Your task to perform on an android device: toggle location history Image 0: 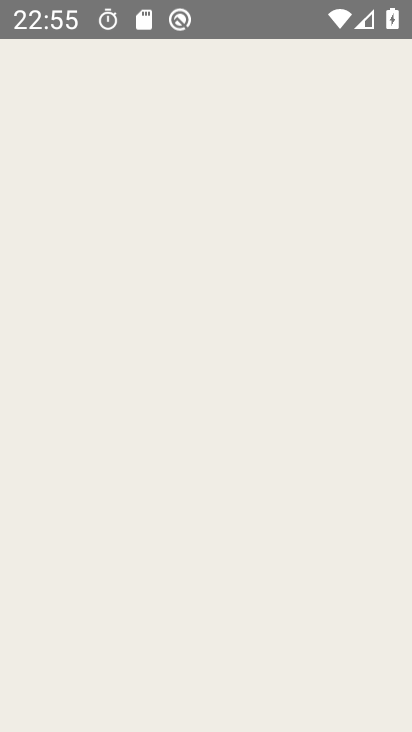
Step 0: press home button
Your task to perform on an android device: toggle location history Image 1: 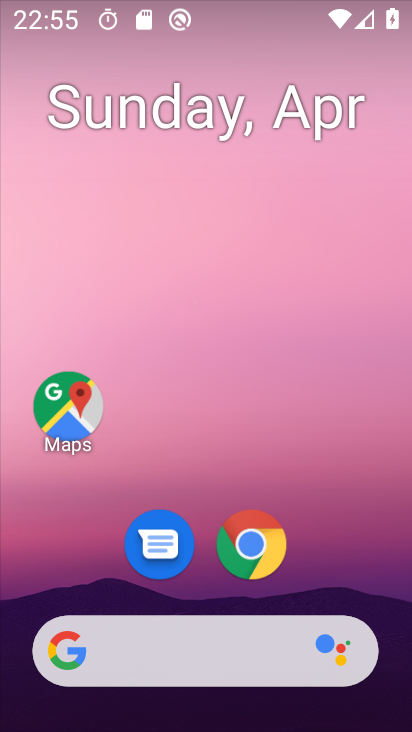
Step 1: drag from (341, 529) to (376, 274)
Your task to perform on an android device: toggle location history Image 2: 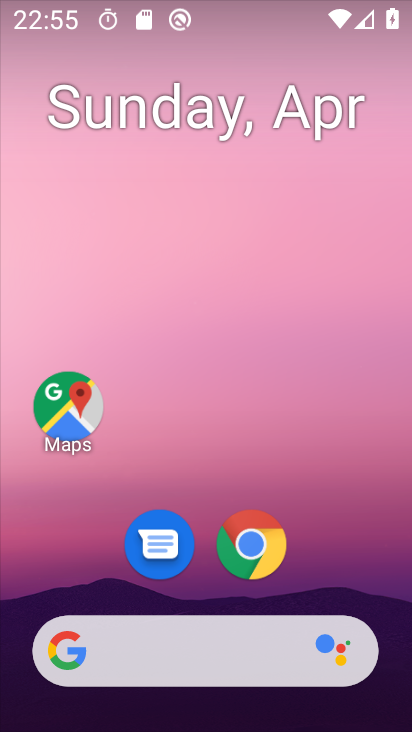
Step 2: click (346, 287)
Your task to perform on an android device: toggle location history Image 3: 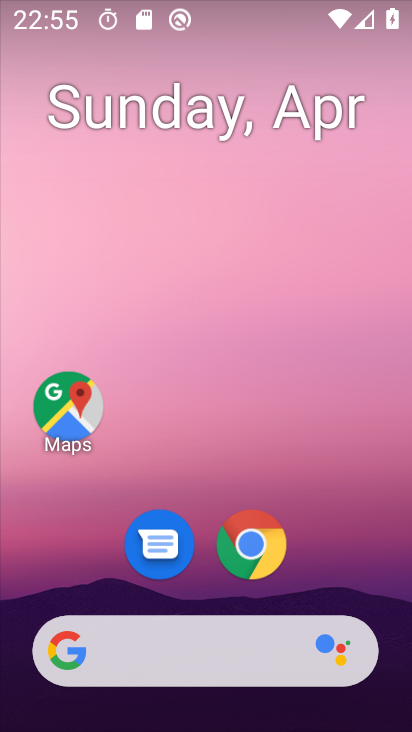
Step 3: drag from (348, 501) to (356, 231)
Your task to perform on an android device: toggle location history Image 4: 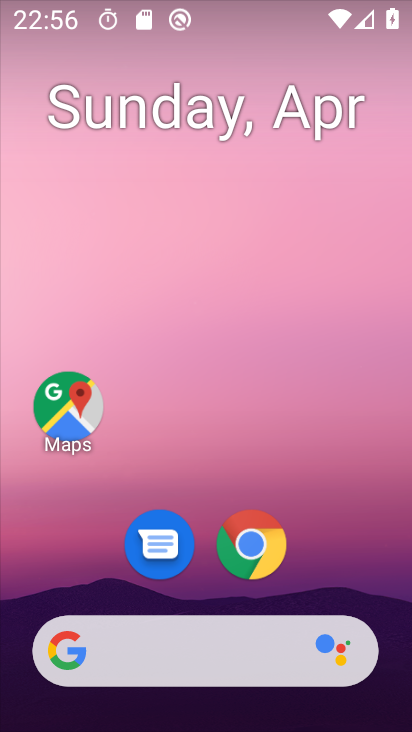
Step 4: drag from (324, 519) to (358, 173)
Your task to perform on an android device: toggle location history Image 5: 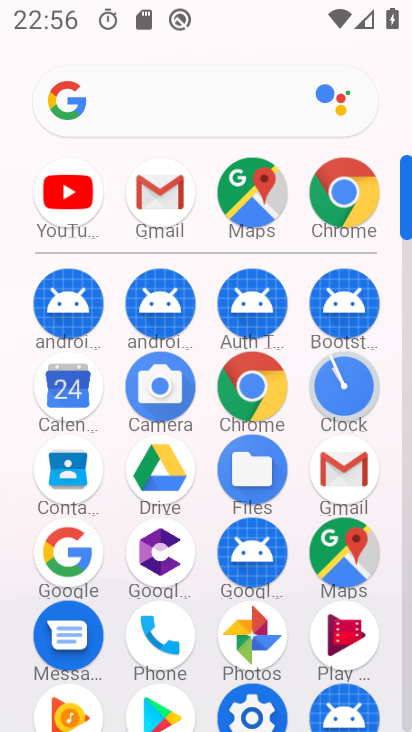
Step 5: click (247, 716)
Your task to perform on an android device: toggle location history Image 6: 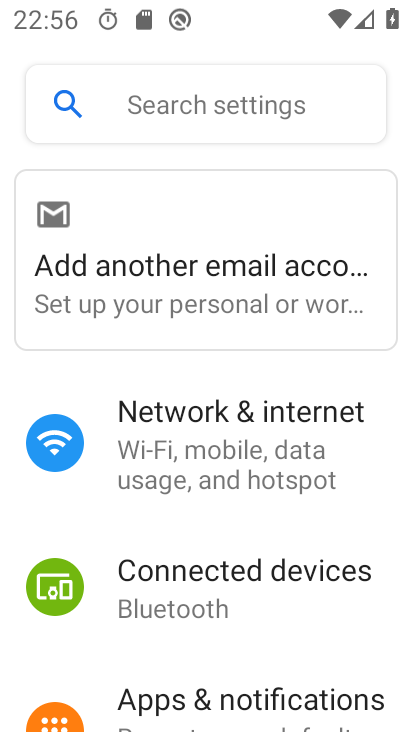
Step 6: drag from (237, 558) to (335, 155)
Your task to perform on an android device: toggle location history Image 7: 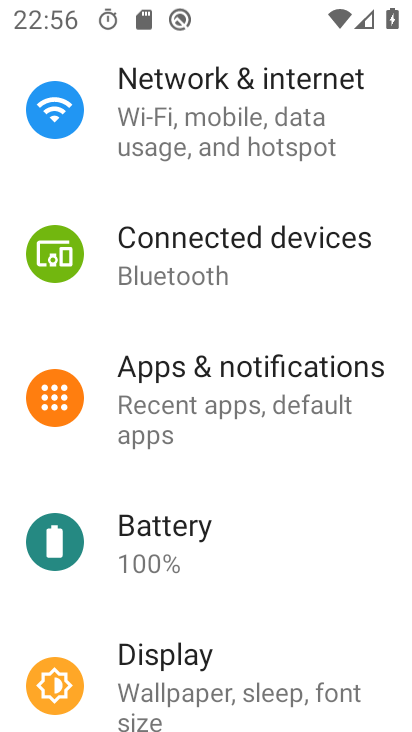
Step 7: drag from (236, 659) to (303, 226)
Your task to perform on an android device: toggle location history Image 8: 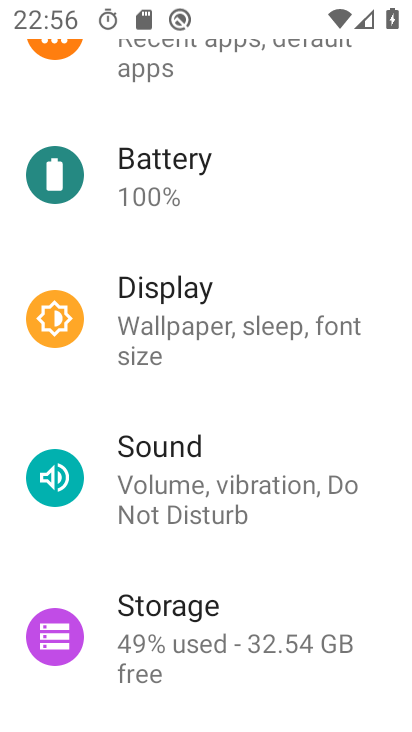
Step 8: drag from (254, 118) to (199, 689)
Your task to perform on an android device: toggle location history Image 9: 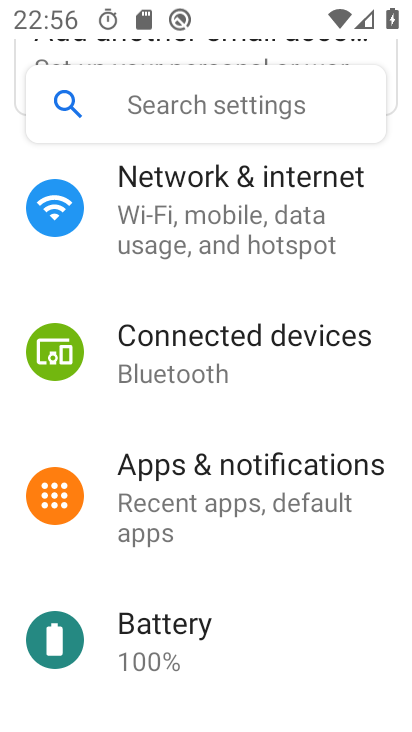
Step 9: drag from (275, 609) to (394, 151)
Your task to perform on an android device: toggle location history Image 10: 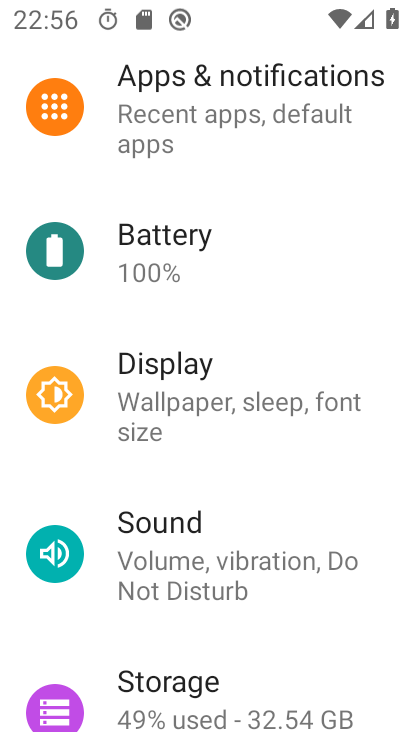
Step 10: drag from (318, 606) to (371, 52)
Your task to perform on an android device: toggle location history Image 11: 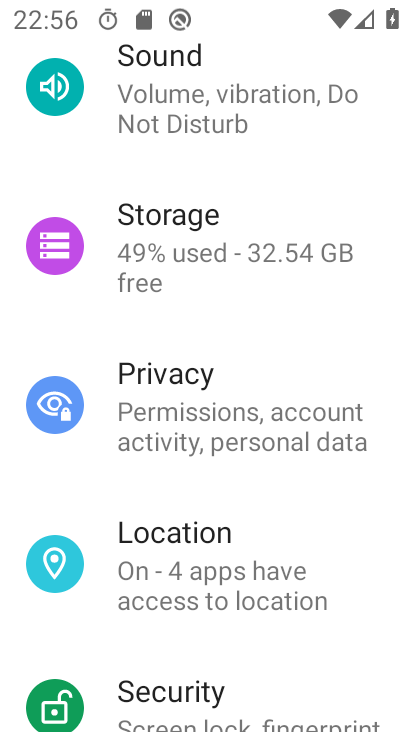
Step 11: click (194, 578)
Your task to perform on an android device: toggle location history Image 12: 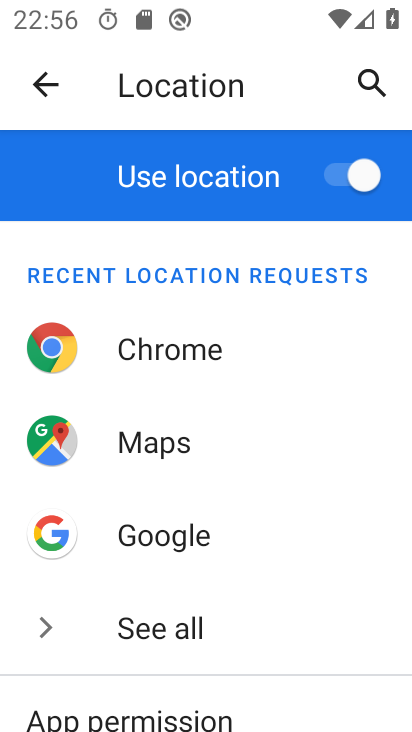
Step 12: drag from (281, 643) to (332, 277)
Your task to perform on an android device: toggle location history Image 13: 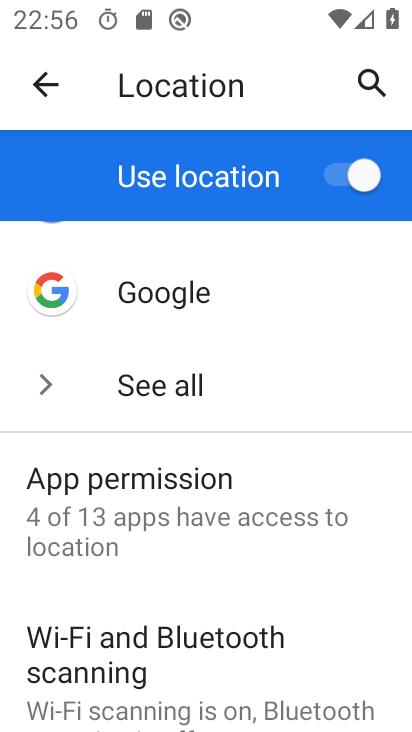
Step 13: drag from (239, 603) to (307, 233)
Your task to perform on an android device: toggle location history Image 14: 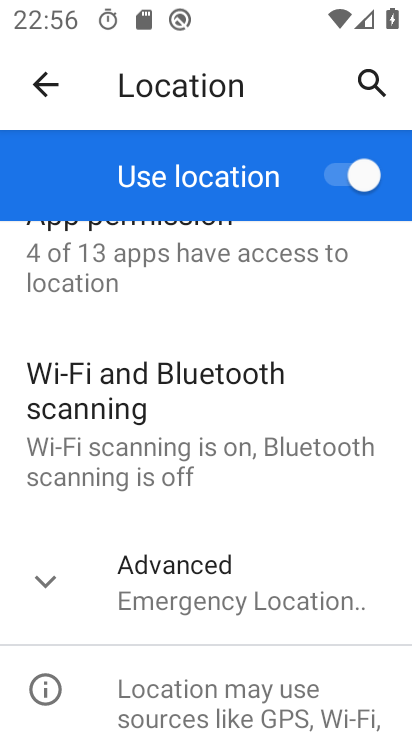
Step 14: click (199, 597)
Your task to perform on an android device: toggle location history Image 15: 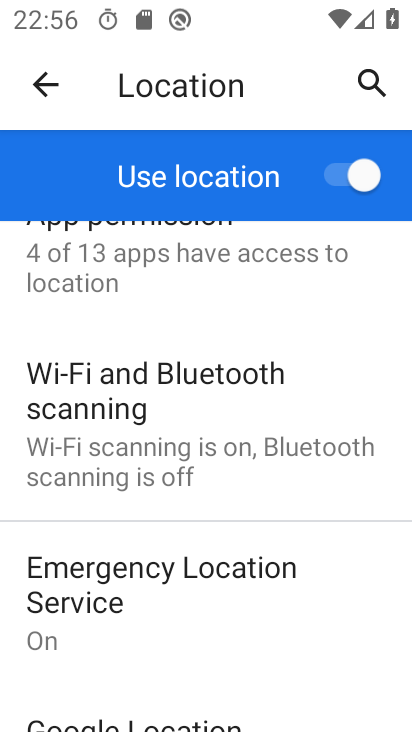
Step 15: drag from (261, 616) to (312, 261)
Your task to perform on an android device: toggle location history Image 16: 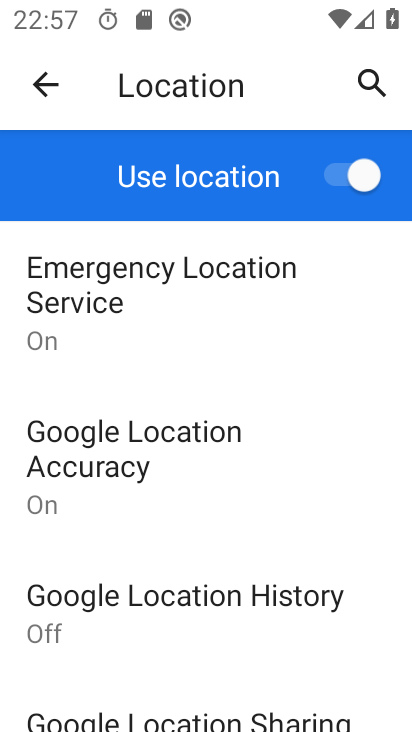
Step 16: click (174, 436)
Your task to perform on an android device: toggle location history Image 17: 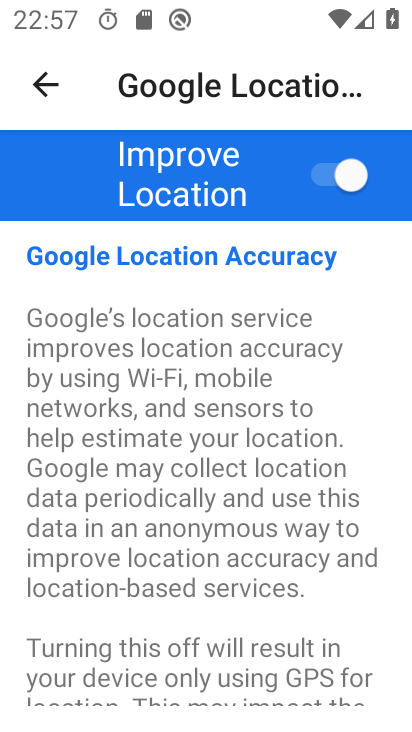
Step 17: click (62, 74)
Your task to perform on an android device: toggle location history Image 18: 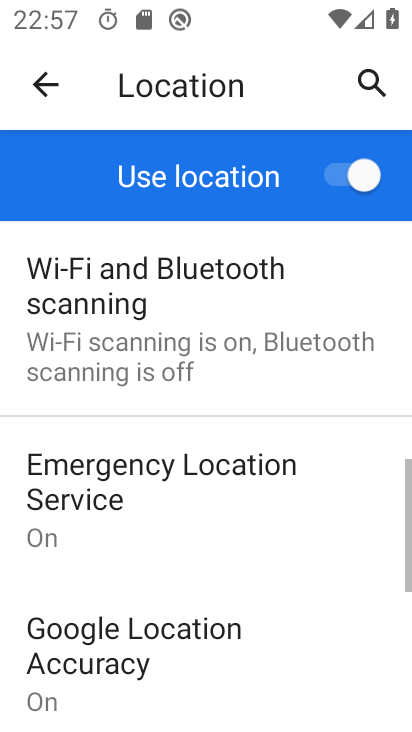
Step 18: drag from (229, 626) to (278, 159)
Your task to perform on an android device: toggle location history Image 19: 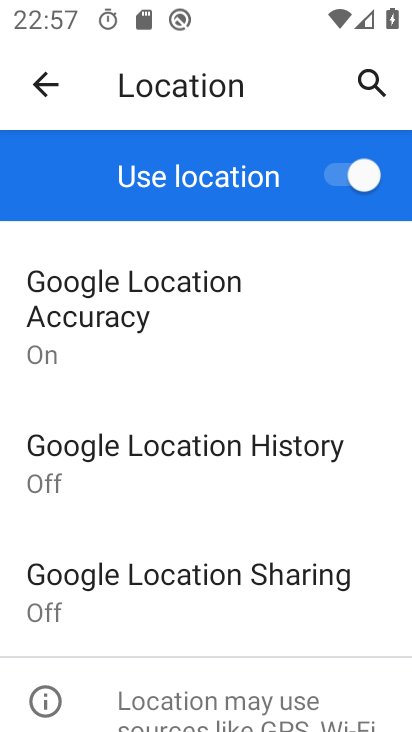
Step 19: click (173, 450)
Your task to perform on an android device: toggle location history Image 20: 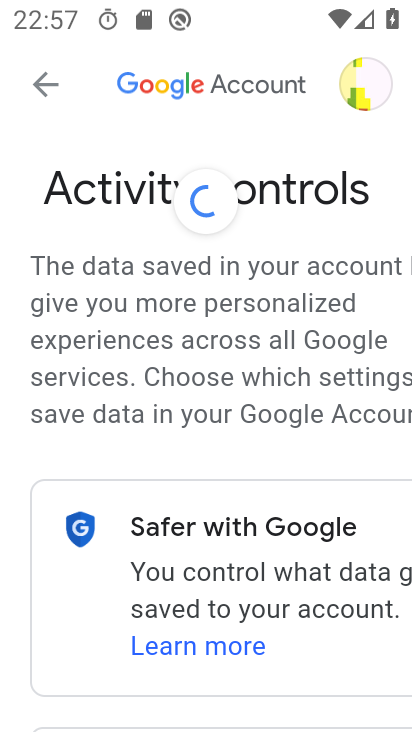
Step 20: drag from (247, 669) to (297, 210)
Your task to perform on an android device: toggle location history Image 21: 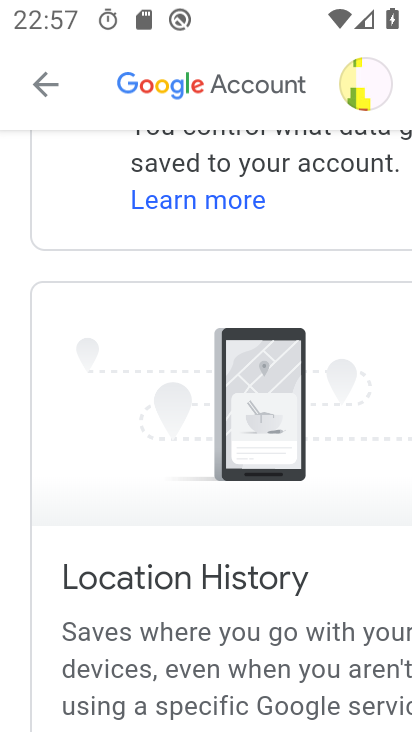
Step 21: drag from (296, 667) to (335, 173)
Your task to perform on an android device: toggle location history Image 22: 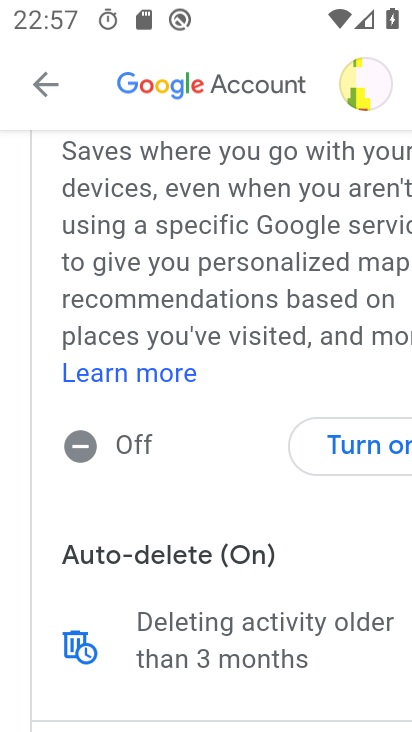
Step 22: click (353, 443)
Your task to perform on an android device: toggle location history Image 23: 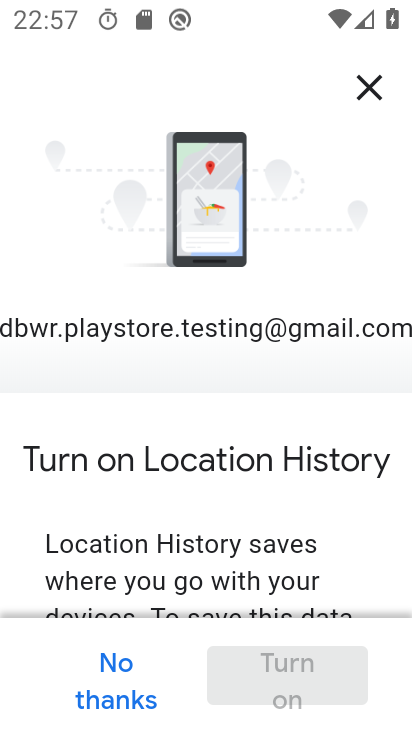
Step 23: click (273, 662)
Your task to perform on an android device: toggle location history Image 24: 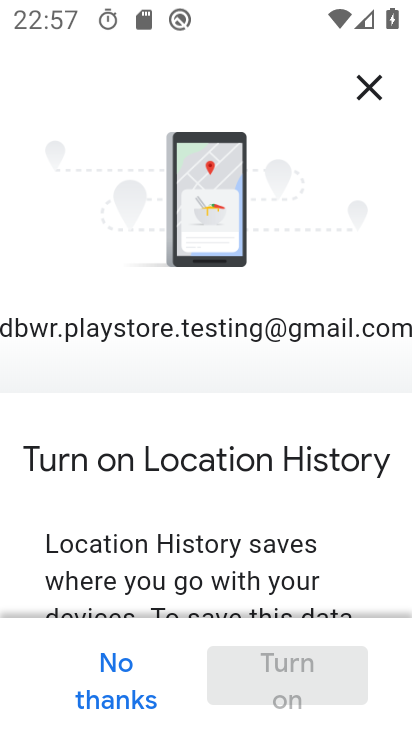
Step 24: click (135, 680)
Your task to perform on an android device: toggle location history Image 25: 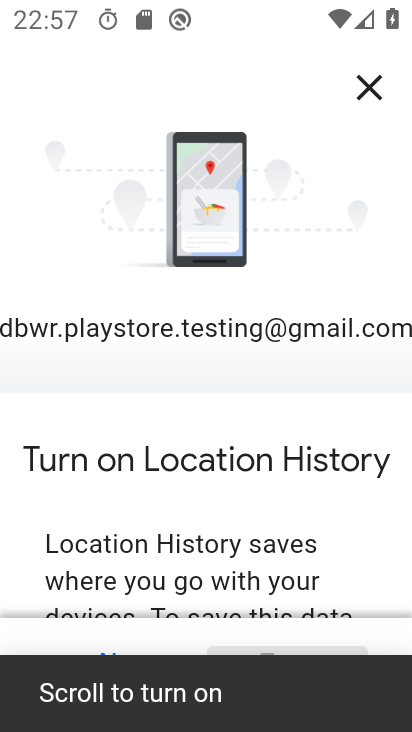
Step 25: drag from (261, 570) to (315, 169)
Your task to perform on an android device: toggle location history Image 26: 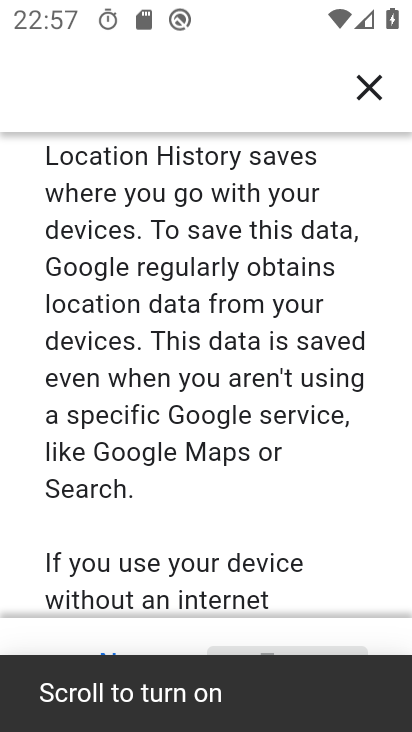
Step 26: drag from (240, 547) to (320, 166)
Your task to perform on an android device: toggle location history Image 27: 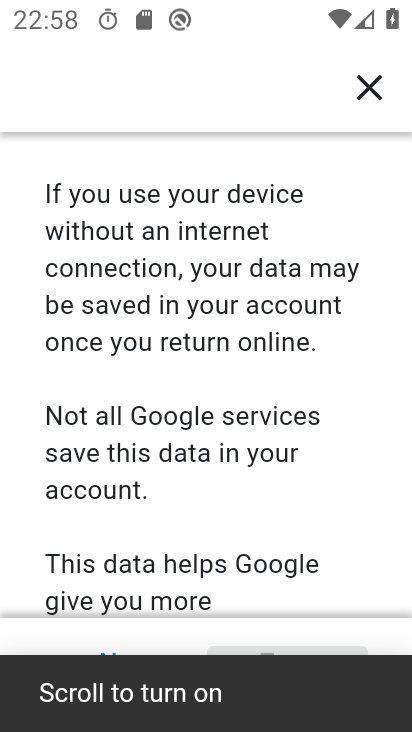
Step 27: drag from (299, 453) to (305, 215)
Your task to perform on an android device: toggle location history Image 28: 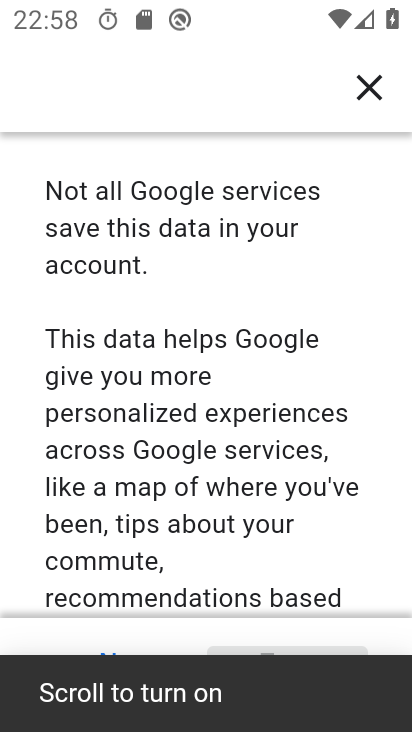
Step 28: drag from (352, 470) to (327, 175)
Your task to perform on an android device: toggle location history Image 29: 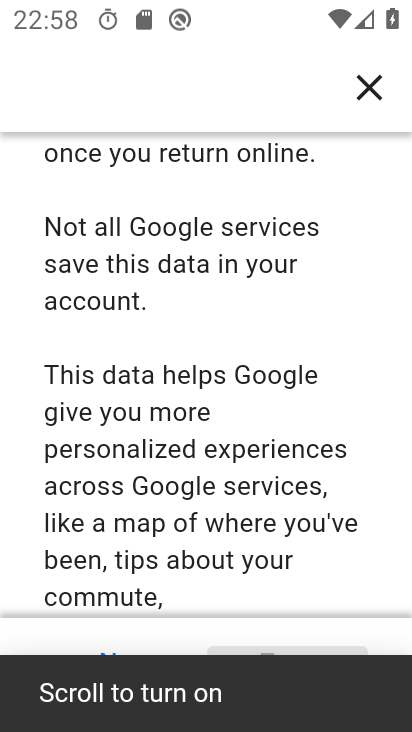
Step 29: drag from (305, 499) to (354, 247)
Your task to perform on an android device: toggle location history Image 30: 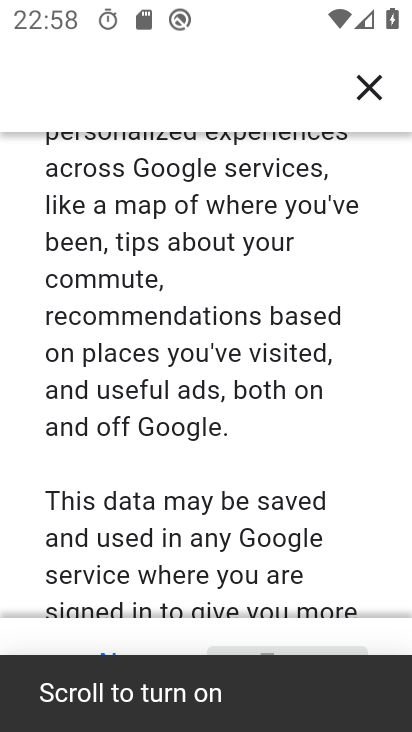
Step 30: drag from (282, 437) to (290, 287)
Your task to perform on an android device: toggle location history Image 31: 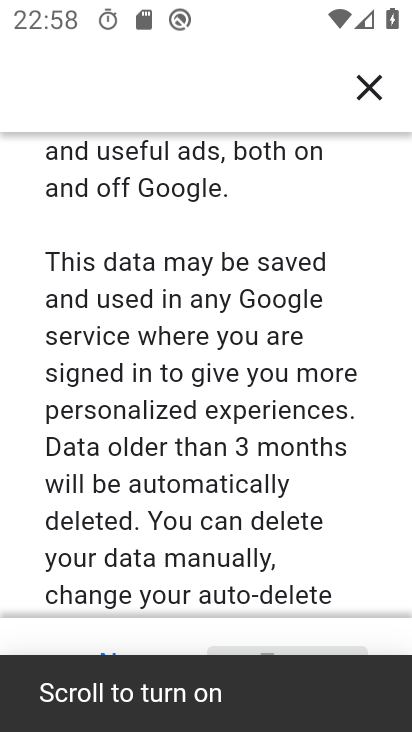
Step 31: drag from (323, 363) to (313, 252)
Your task to perform on an android device: toggle location history Image 32: 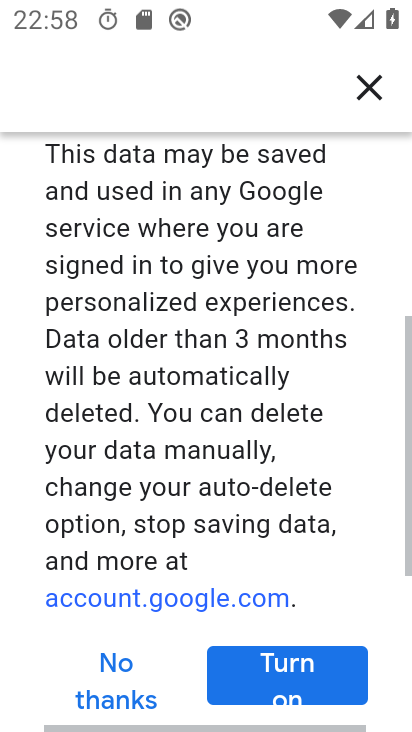
Step 32: drag from (304, 392) to (312, 334)
Your task to perform on an android device: toggle location history Image 33: 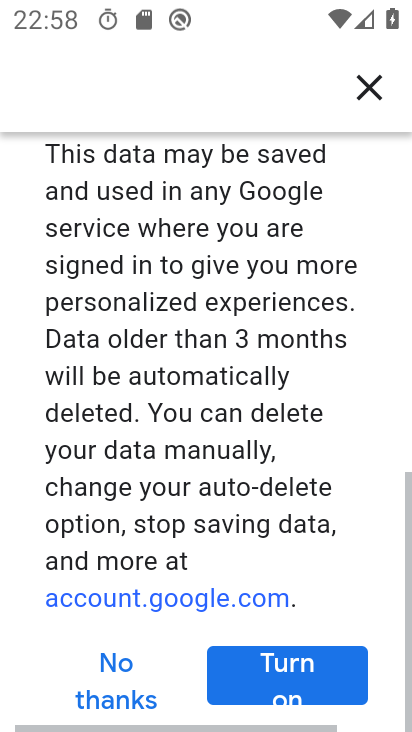
Step 33: click (284, 682)
Your task to perform on an android device: toggle location history Image 34: 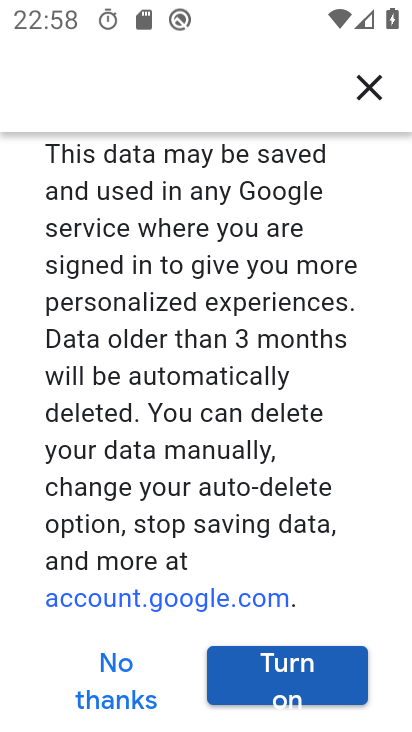
Step 34: click (289, 675)
Your task to perform on an android device: toggle location history Image 35: 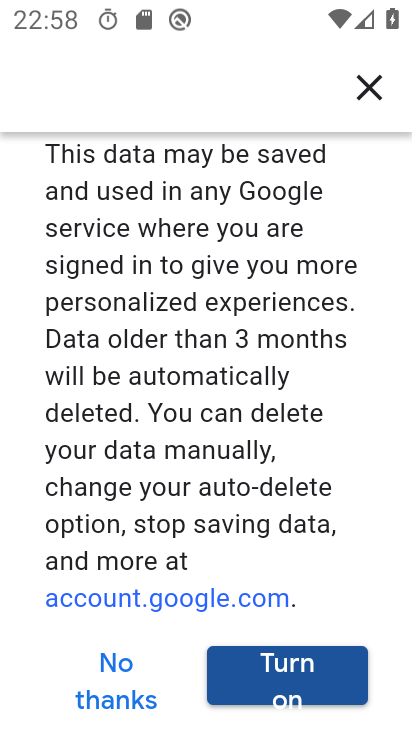
Step 35: click (289, 675)
Your task to perform on an android device: toggle location history Image 36: 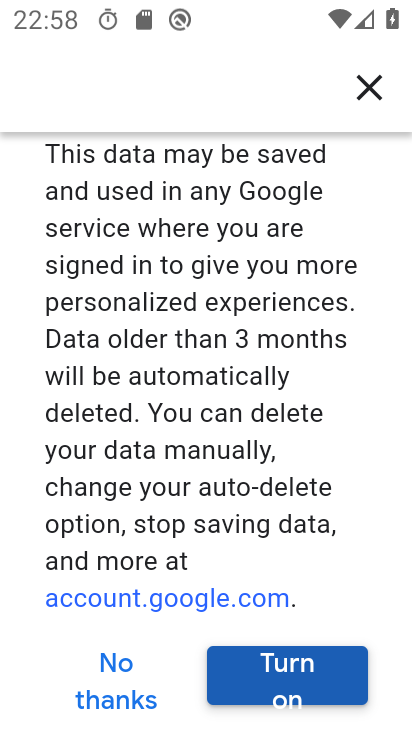
Step 36: task complete